Your task to perform on an android device: Go to display settings Image 0: 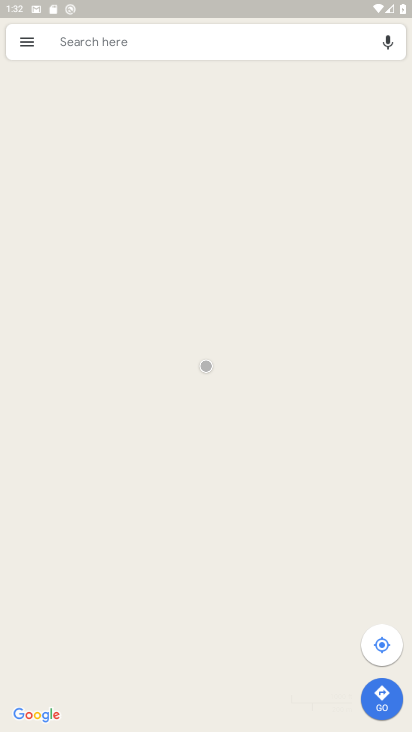
Step 0: press home button
Your task to perform on an android device: Go to display settings Image 1: 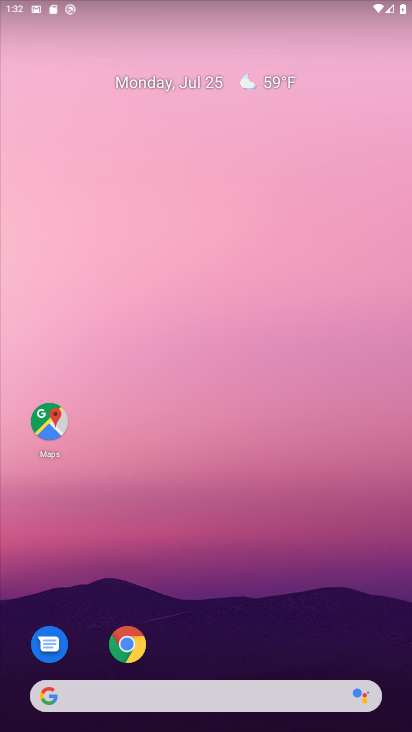
Step 1: drag from (395, 691) to (290, 56)
Your task to perform on an android device: Go to display settings Image 2: 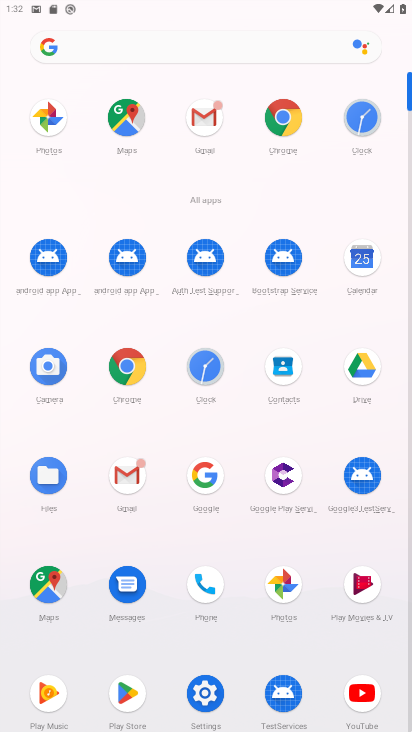
Step 2: click (201, 692)
Your task to perform on an android device: Go to display settings Image 3: 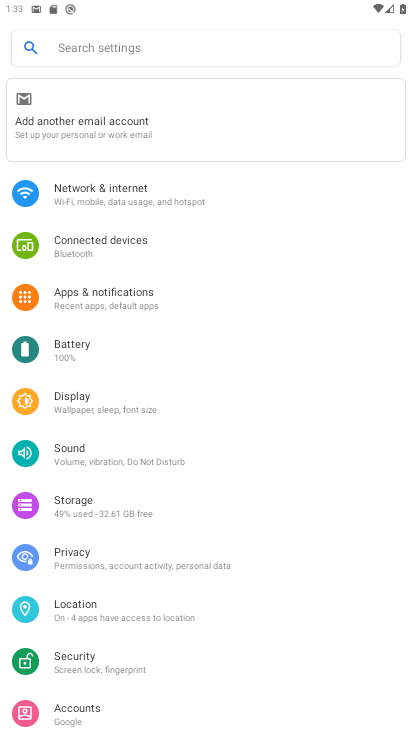
Step 3: click (117, 402)
Your task to perform on an android device: Go to display settings Image 4: 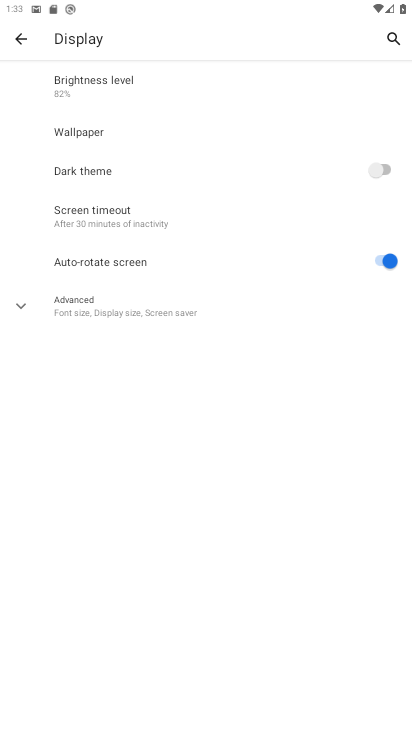
Step 4: click (34, 309)
Your task to perform on an android device: Go to display settings Image 5: 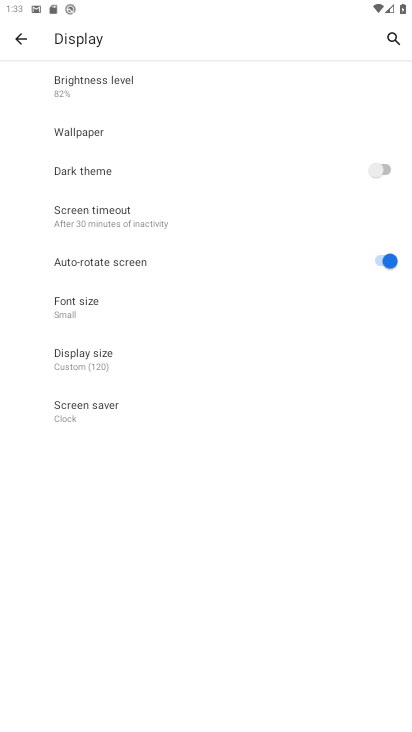
Step 5: task complete